Your task to perform on an android device: move an email to a new category in the gmail app Image 0: 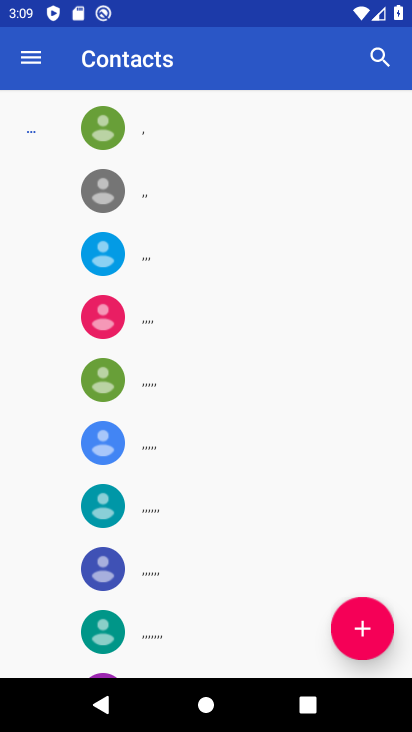
Step 0: press home button
Your task to perform on an android device: move an email to a new category in the gmail app Image 1: 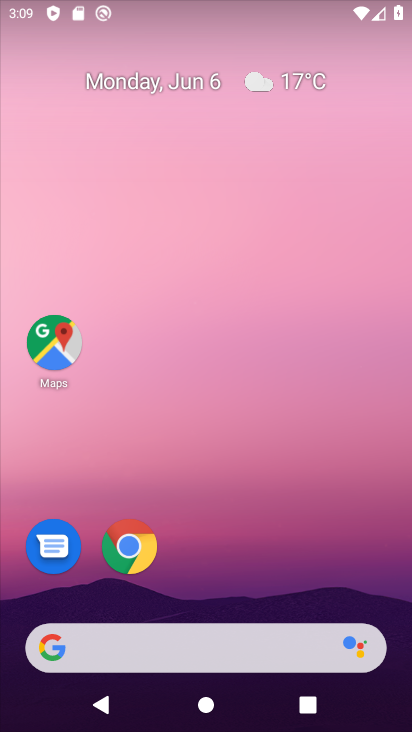
Step 1: drag from (314, 560) to (330, 17)
Your task to perform on an android device: move an email to a new category in the gmail app Image 2: 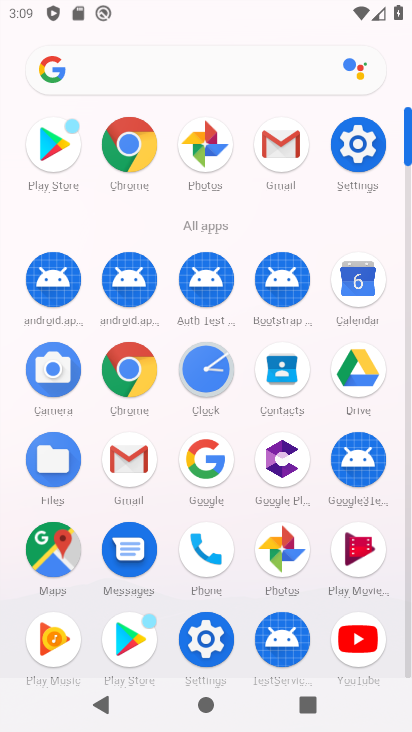
Step 2: click (284, 155)
Your task to perform on an android device: move an email to a new category in the gmail app Image 3: 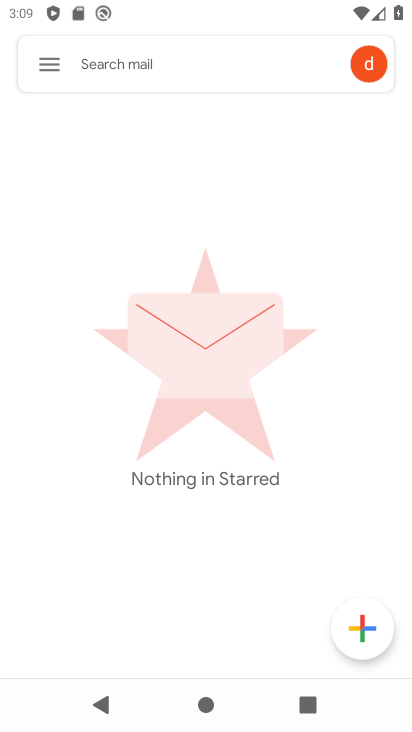
Step 3: click (49, 63)
Your task to perform on an android device: move an email to a new category in the gmail app Image 4: 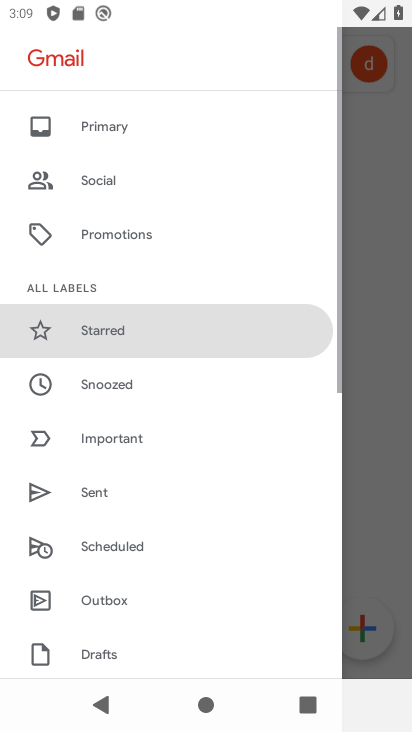
Step 4: drag from (115, 108) to (190, 658)
Your task to perform on an android device: move an email to a new category in the gmail app Image 5: 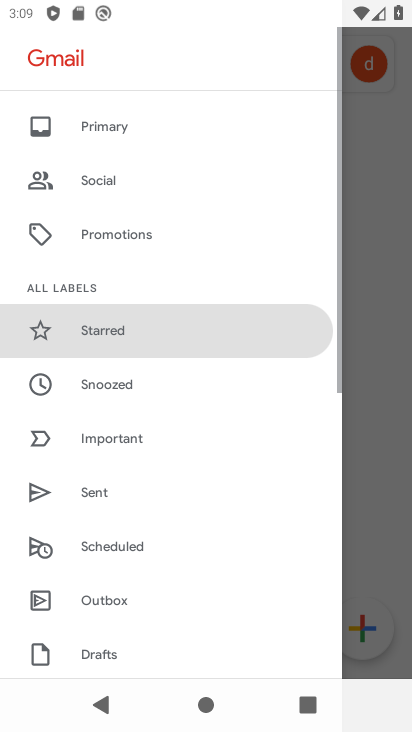
Step 5: drag from (182, 517) to (205, 118)
Your task to perform on an android device: move an email to a new category in the gmail app Image 6: 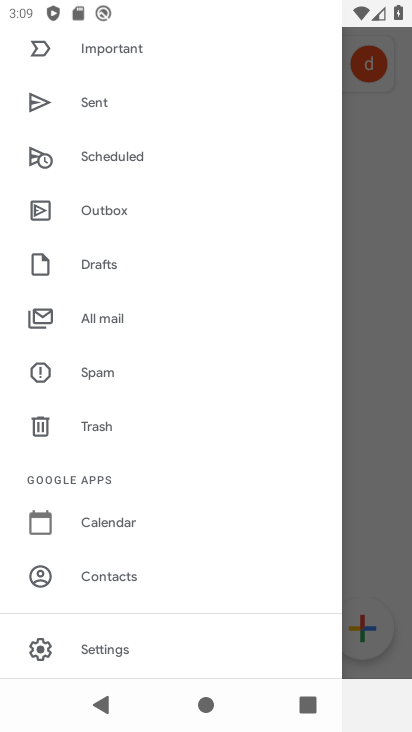
Step 6: click (96, 313)
Your task to perform on an android device: move an email to a new category in the gmail app Image 7: 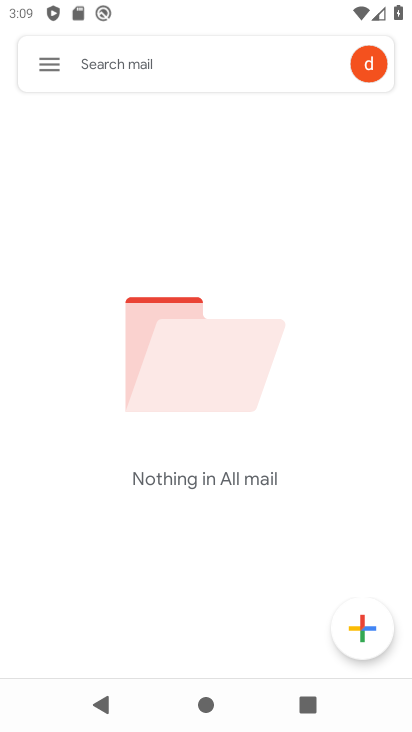
Step 7: task complete